Your task to perform on an android device: Open internet settings Image 0: 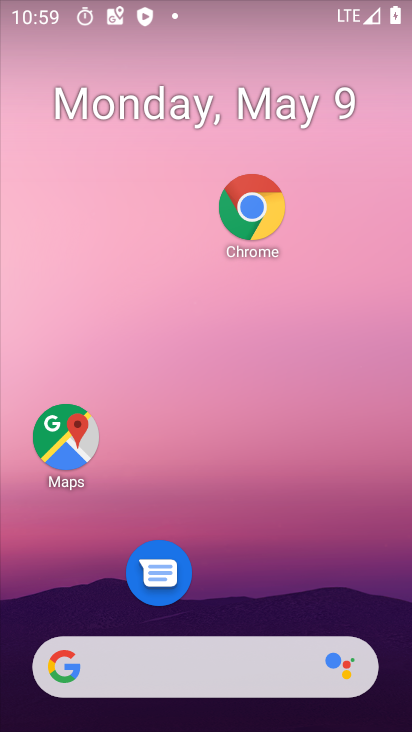
Step 0: drag from (275, 618) to (320, 146)
Your task to perform on an android device: Open internet settings Image 1: 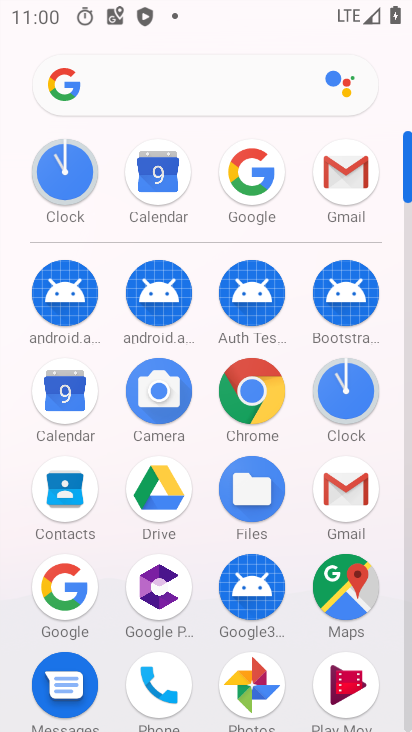
Step 1: drag from (276, 384) to (352, 79)
Your task to perform on an android device: Open internet settings Image 2: 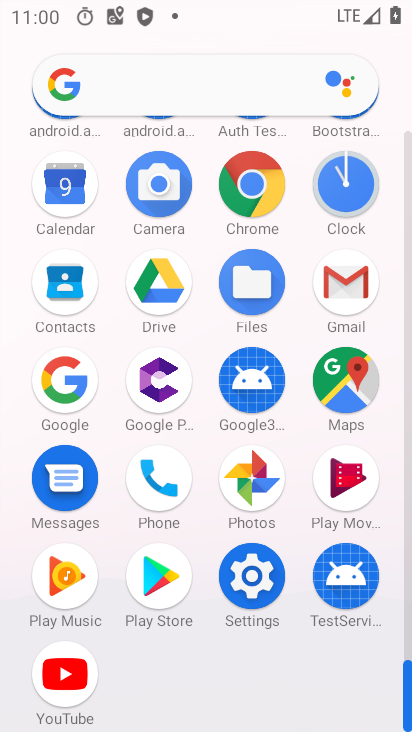
Step 2: click (251, 589)
Your task to perform on an android device: Open internet settings Image 3: 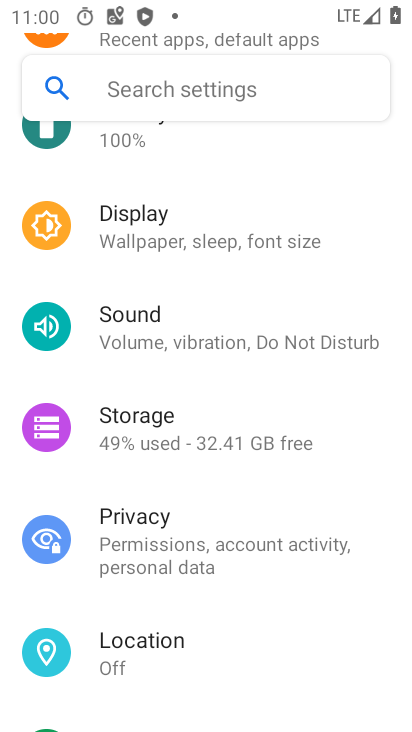
Step 3: drag from (195, 337) to (117, 709)
Your task to perform on an android device: Open internet settings Image 4: 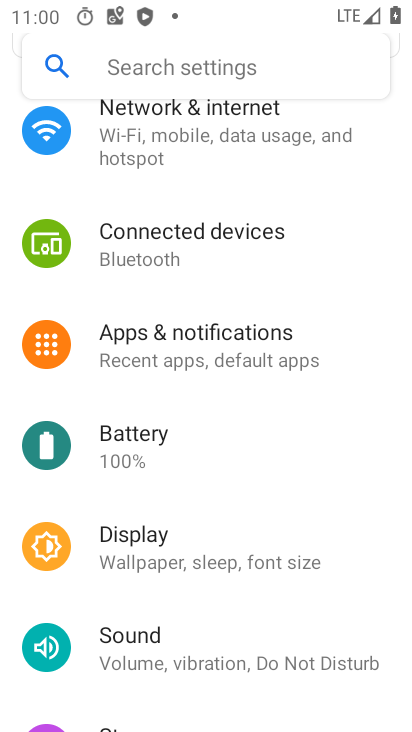
Step 4: drag from (145, 392) to (98, 674)
Your task to perform on an android device: Open internet settings Image 5: 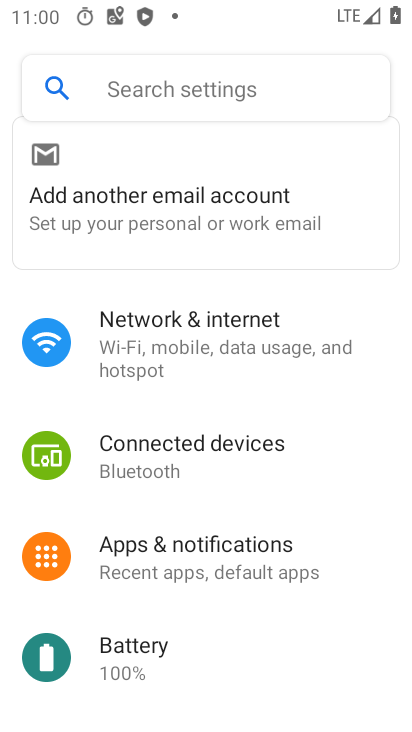
Step 5: drag from (143, 286) to (138, 573)
Your task to perform on an android device: Open internet settings Image 6: 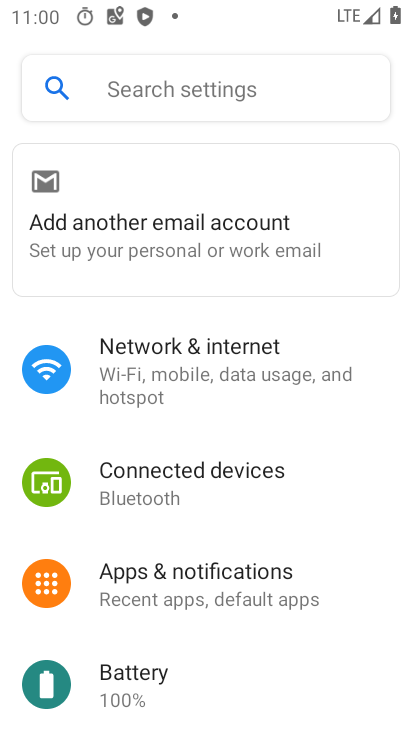
Step 6: click (201, 392)
Your task to perform on an android device: Open internet settings Image 7: 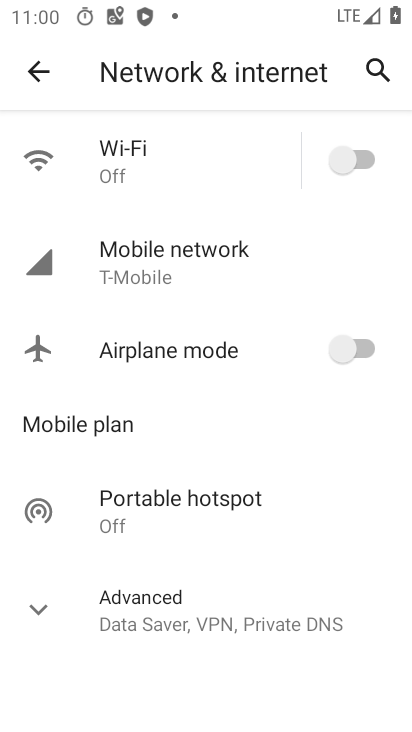
Step 7: click (209, 263)
Your task to perform on an android device: Open internet settings Image 8: 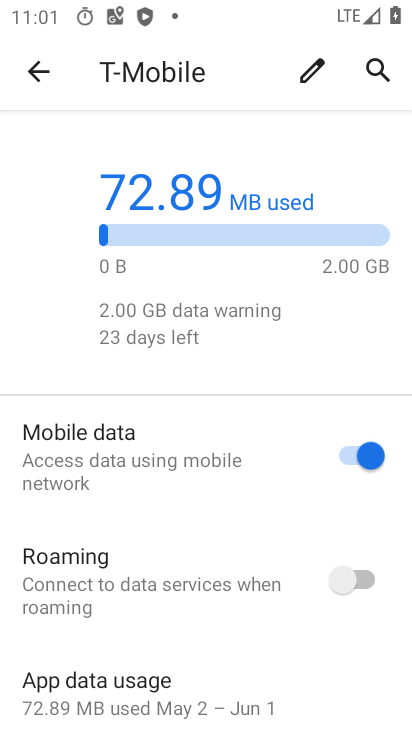
Step 8: task complete